Your task to perform on an android device: Do I have any events this weekend? Image 0: 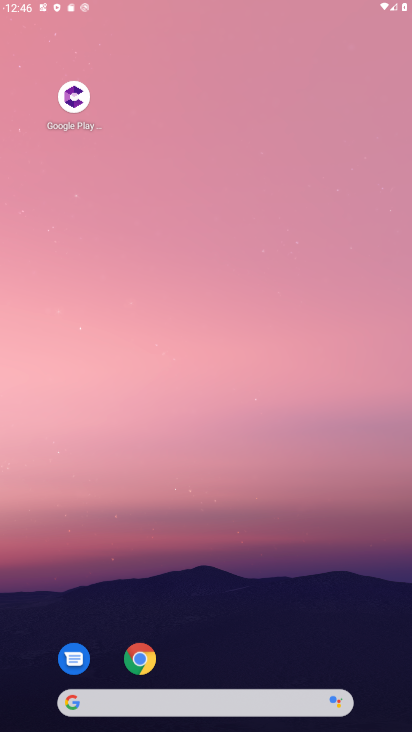
Step 0: click (243, 179)
Your task to perform on an android device: Do I have any events this weekend? Image 1: 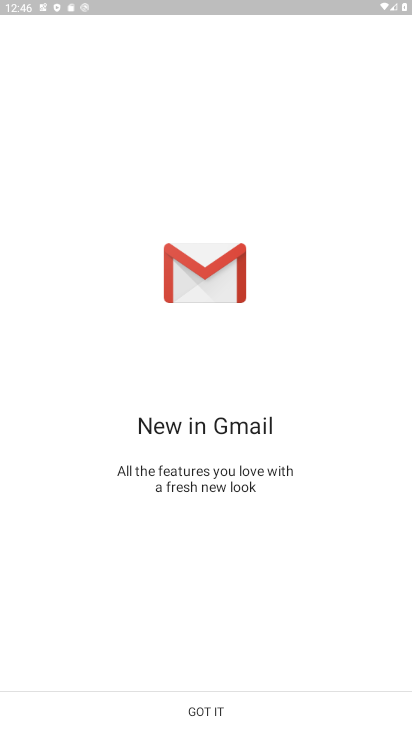
Step 1: press home button
Your task to perform on an android device: Do I have any events this weekend? Image 2: 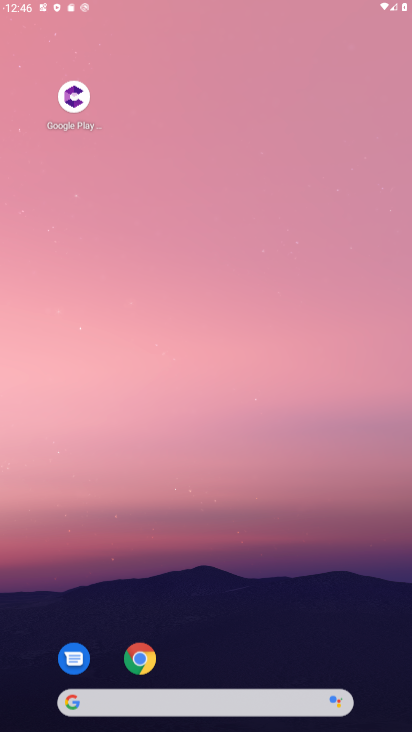
Step 2: drag from (190, 668) to (292, 62)
Your task to perform on an android device: Do I have any events this weekend? Image 3: 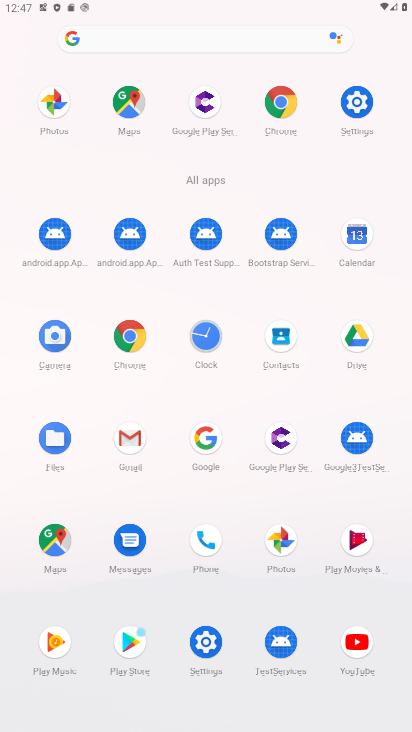
Step 3: click (352, 238)
Your task to perform on an android device: Do I have any events this weekend? Image 4: 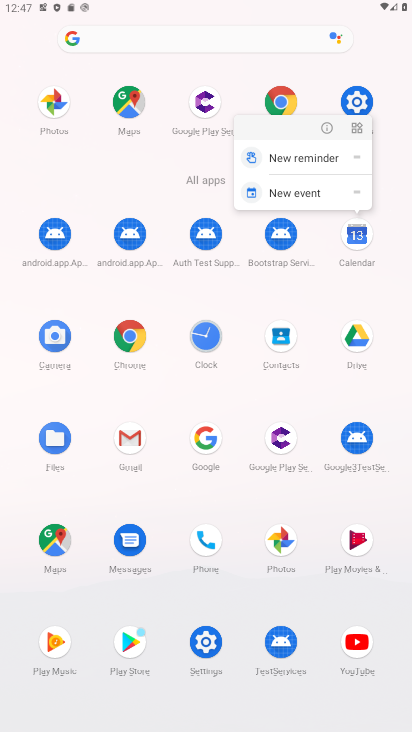
Step 4: click (327, 122)
Your task to perform on an android device: Do I have any events this weekend? Image 5: 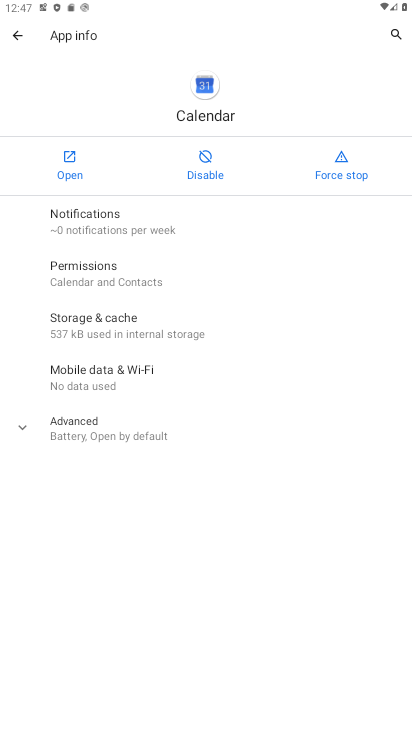
Step 5: click (72, 158)
Your task to perform on an android device: Do I have any events this weekend? Image 6: 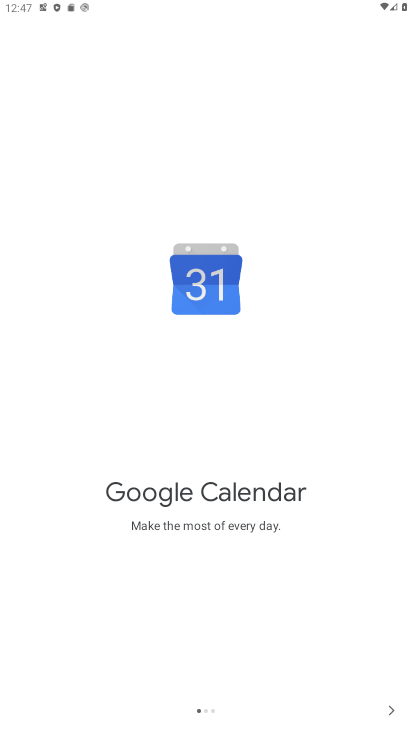
Step 6: click (390, 715)
Your task to perform on an android device: Do I have any events this weekend? Image 7: 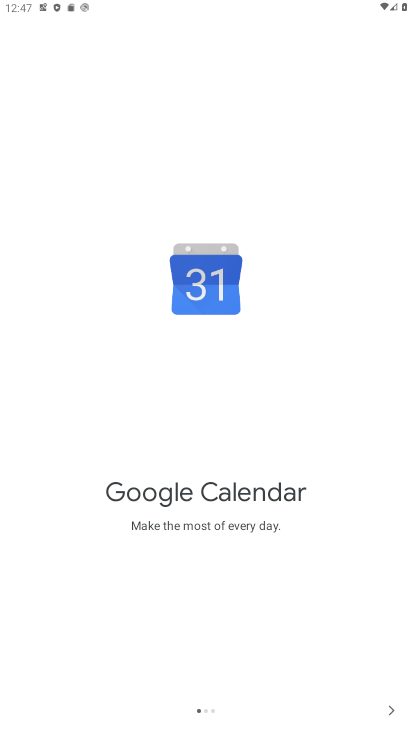
Step 7: click (390, 715)
Your task to perform on an android device: Do I have any events this weekend? Image 8: 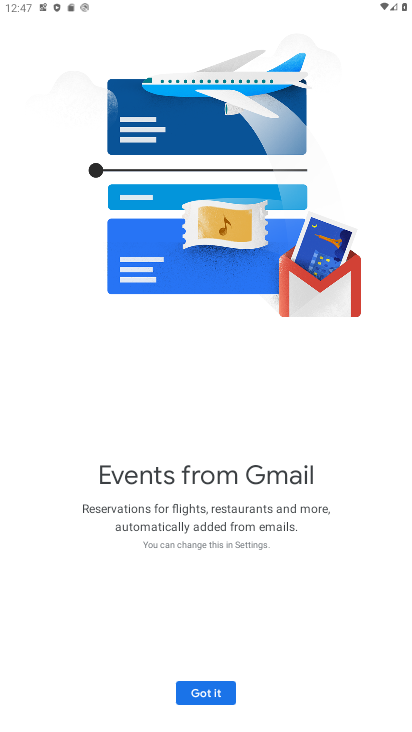
Step 8: click (218, 685)
Your task to perform on an android device: Do I have any events this weekend? Image 9: 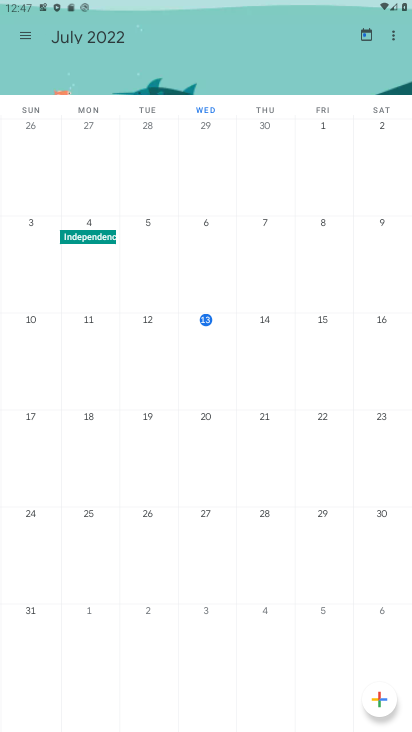
Step 9: click (378, 322)
Your task to perform on an android device: Do I have any events this weekend? Image 10: 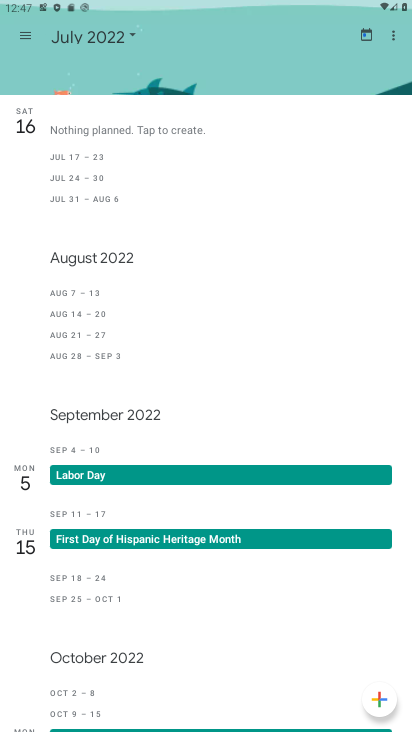
Step 10: task complete